Your task to perform on an android device: Search for logitech g903 on newegg, select the first entry, add it to the cart, then select checkout. Image 0: 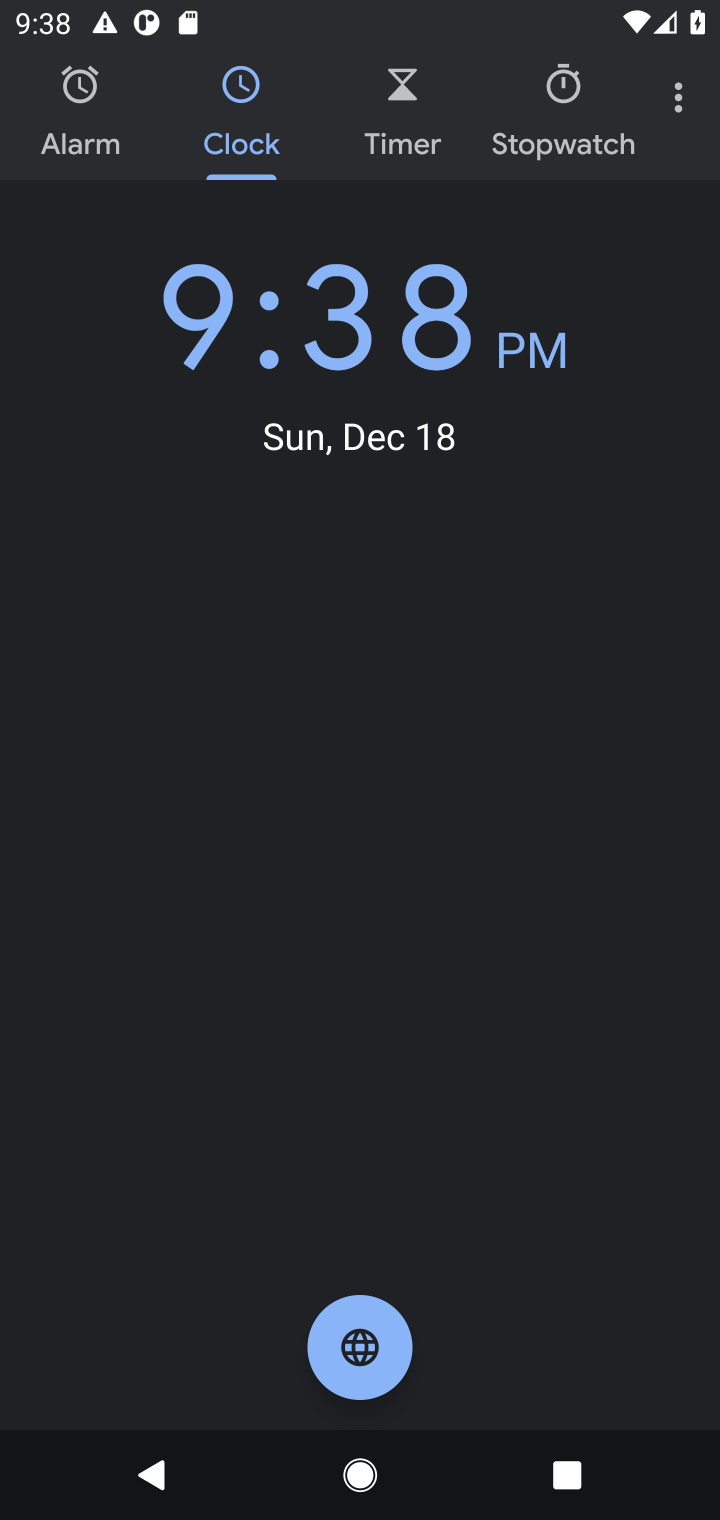
Step 0: press home button
Your task to perform on an android device: Search for logitech g903 on newegg, select the first entry, add it to the cart, then select checkout. Image 1: 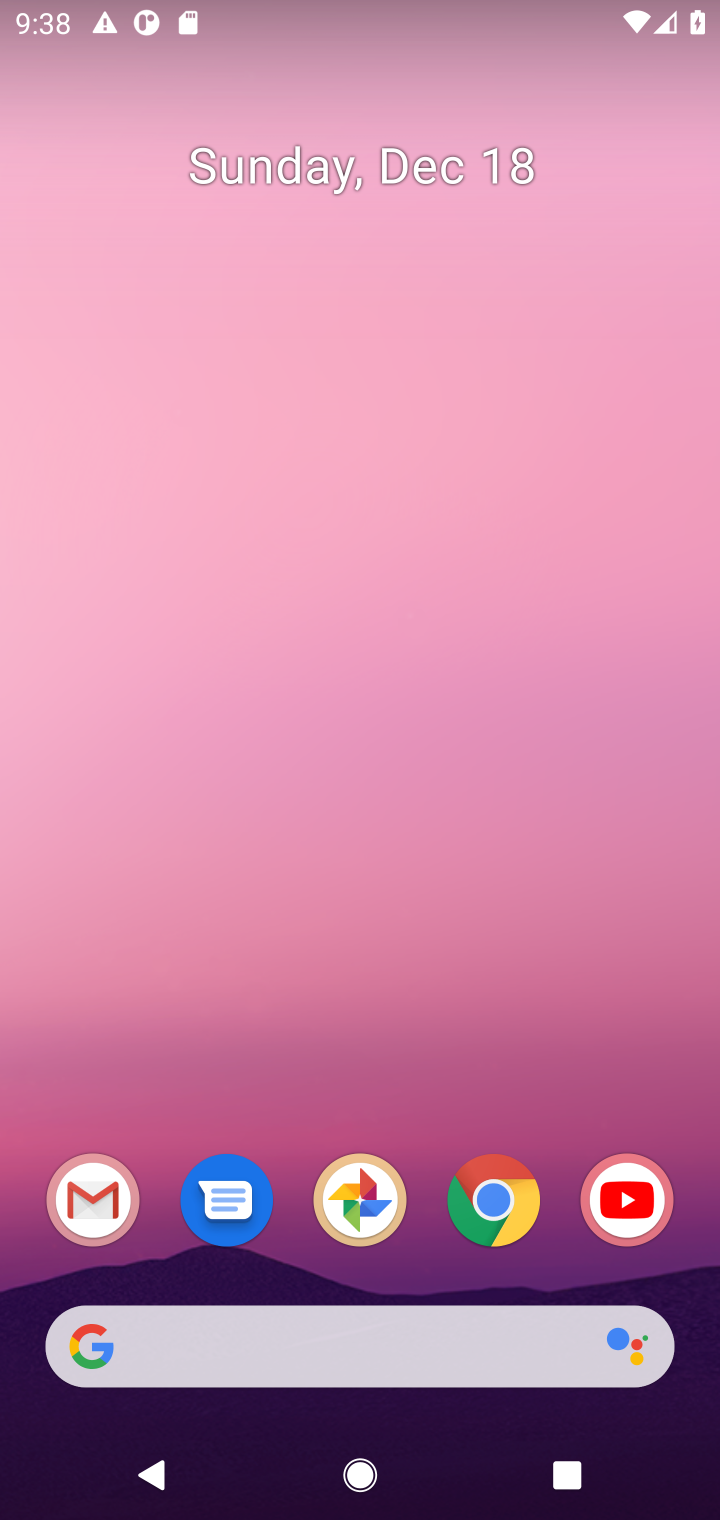
Step 1: click (486, 1207)
Your task to perform on an android device: Search for logitech g903 on newegg, select the first entry, add it to the cart, then select checkout. Image 2: 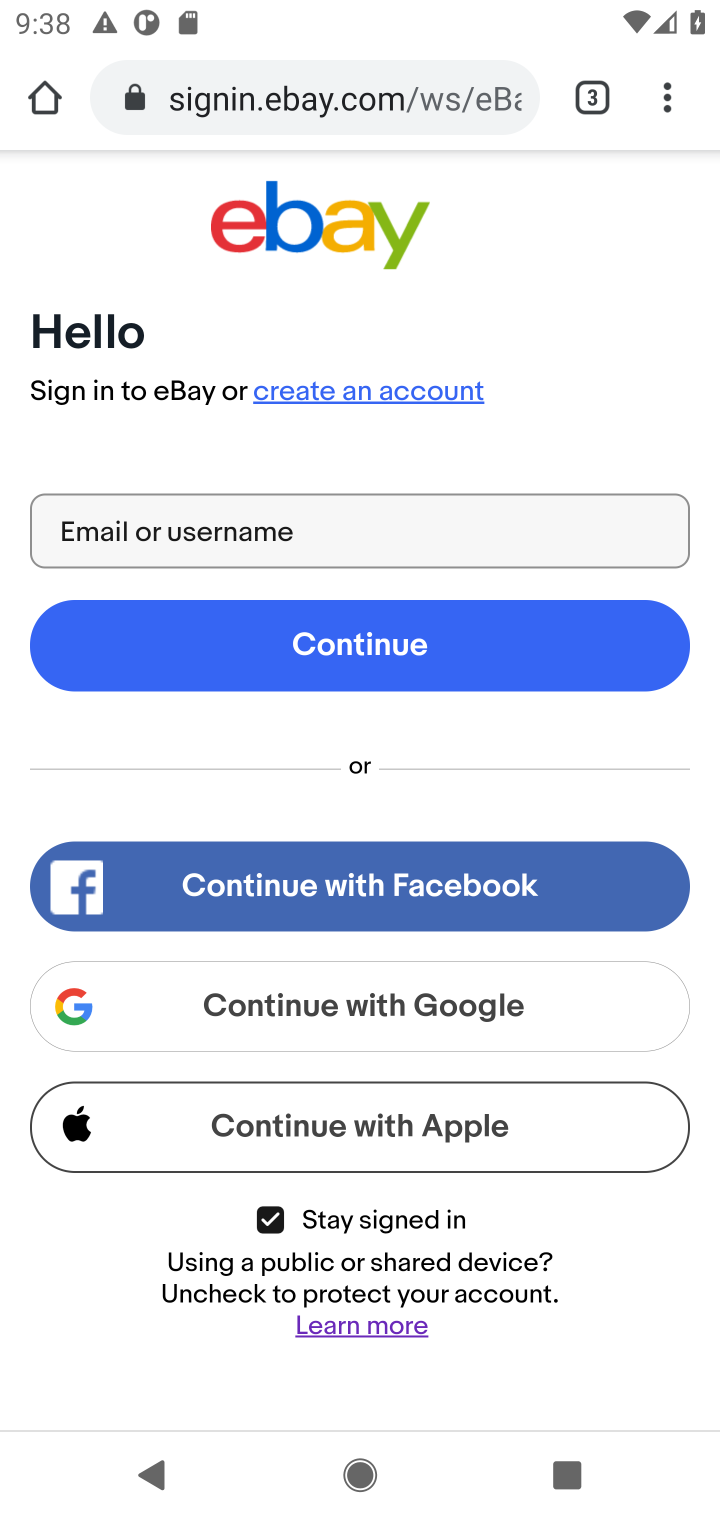
Step 2: click (275, 102)
Your task to perform on an android device: Search for logitech g903 on newegg, select the first entry, add it to the cart, then select checkout. Image 3: 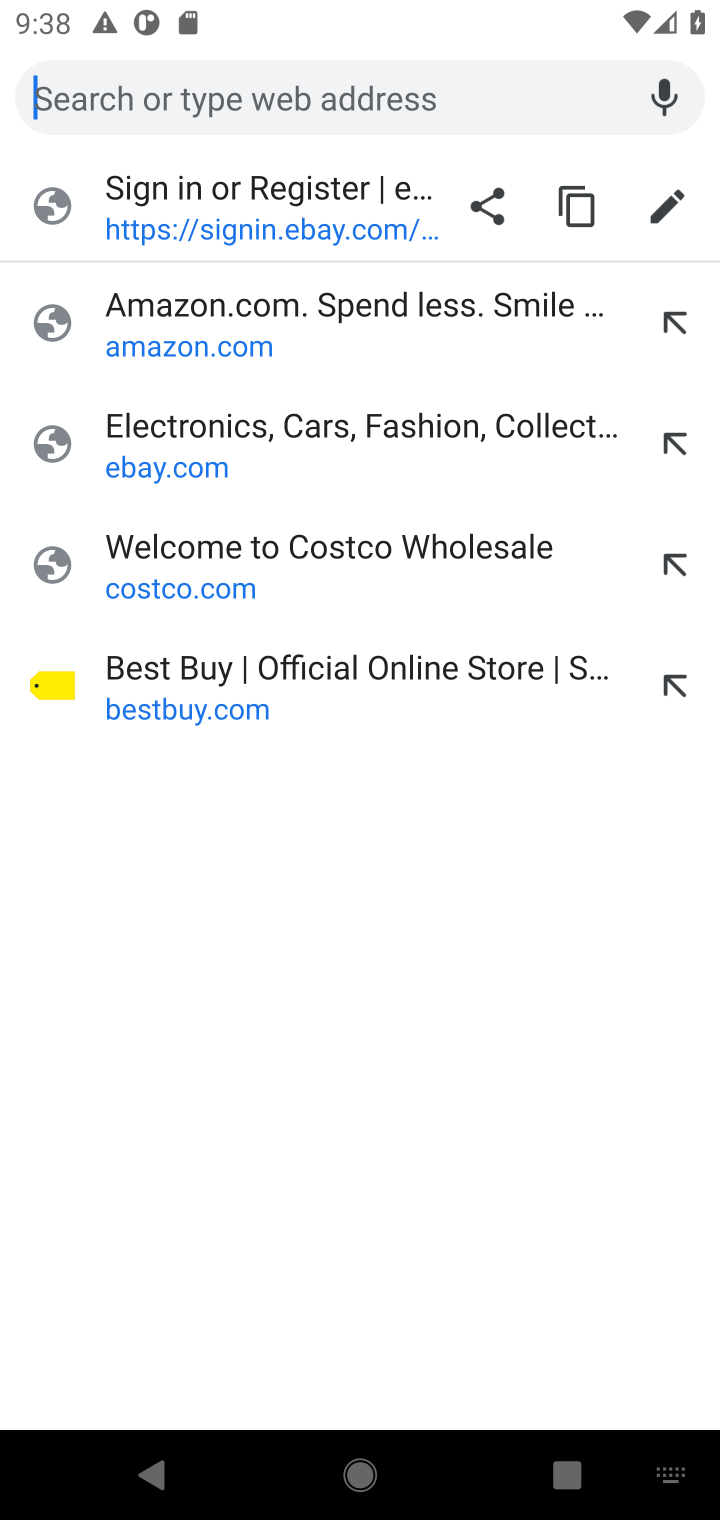
Step 3: type "newegg.com"
Your task to perform on an android device: Search for logitech g903 on newegg, select the first entry, add it to the cart, then select checkout. Image 4: 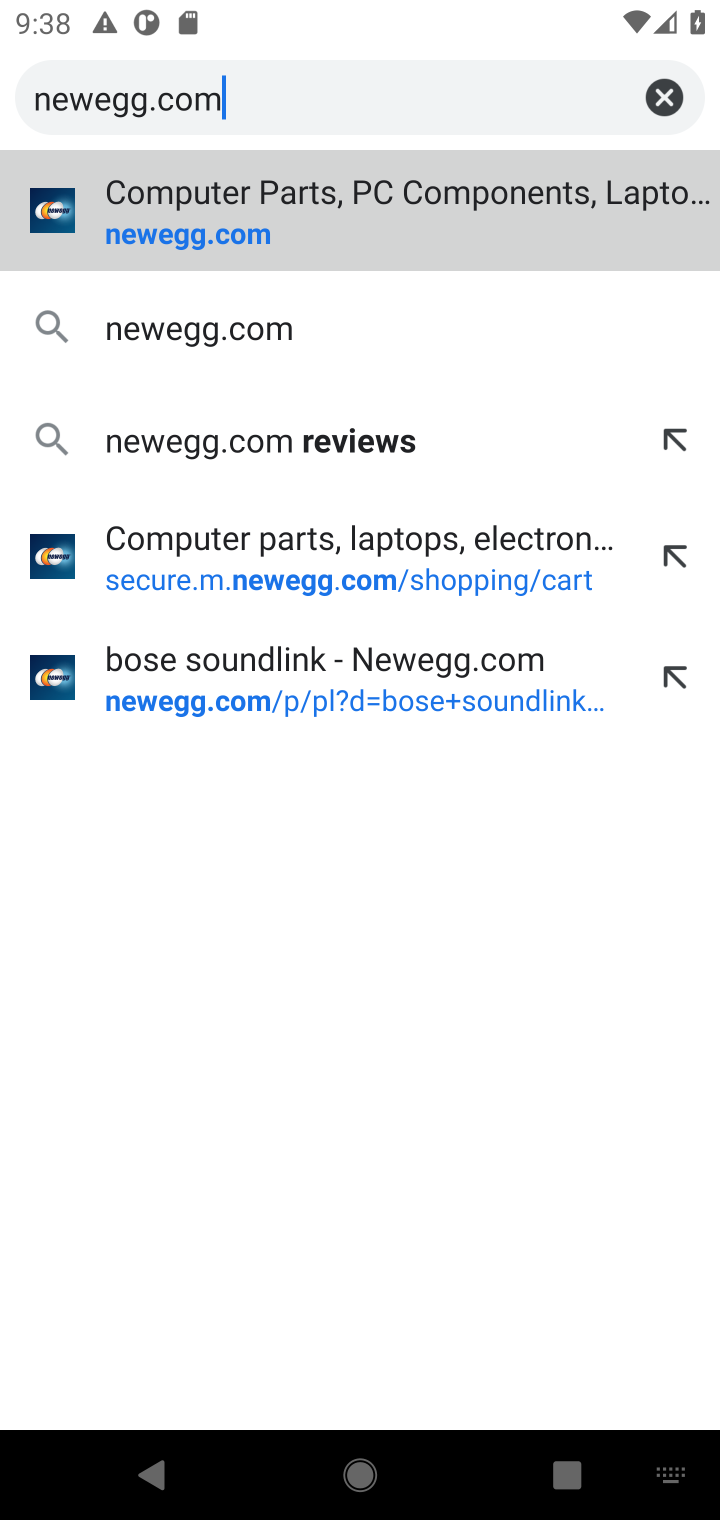
Step 4: click (150, 243)
Your task to perform on an android device: Search for logitech g903 on newegg, select the first entry, add it to the cart, then select checkout. Image 5: 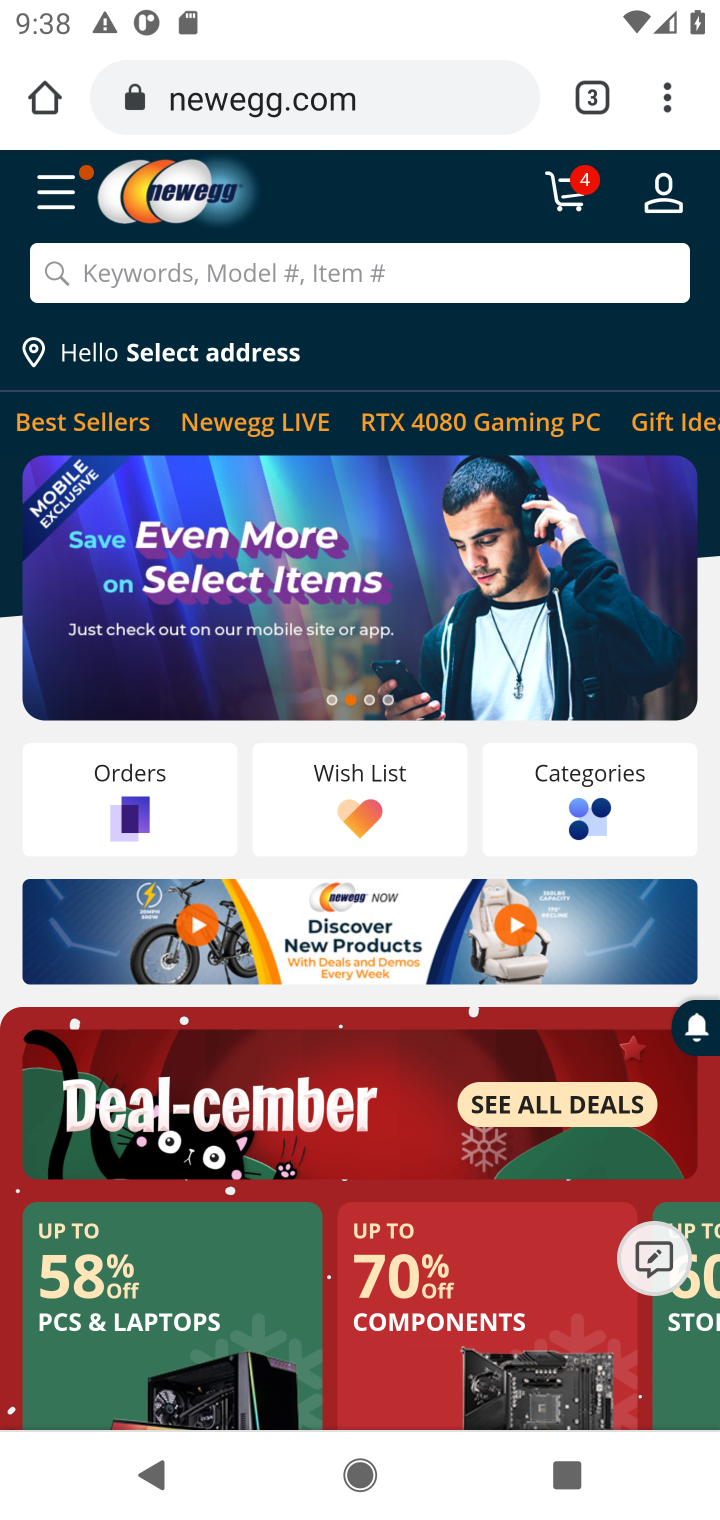
Step 5: click (114, 285)
Your task to perform on an android device: Search for logitech g903 on newegg, select the first entry, add it to the cart, then select checkout. Image 6: 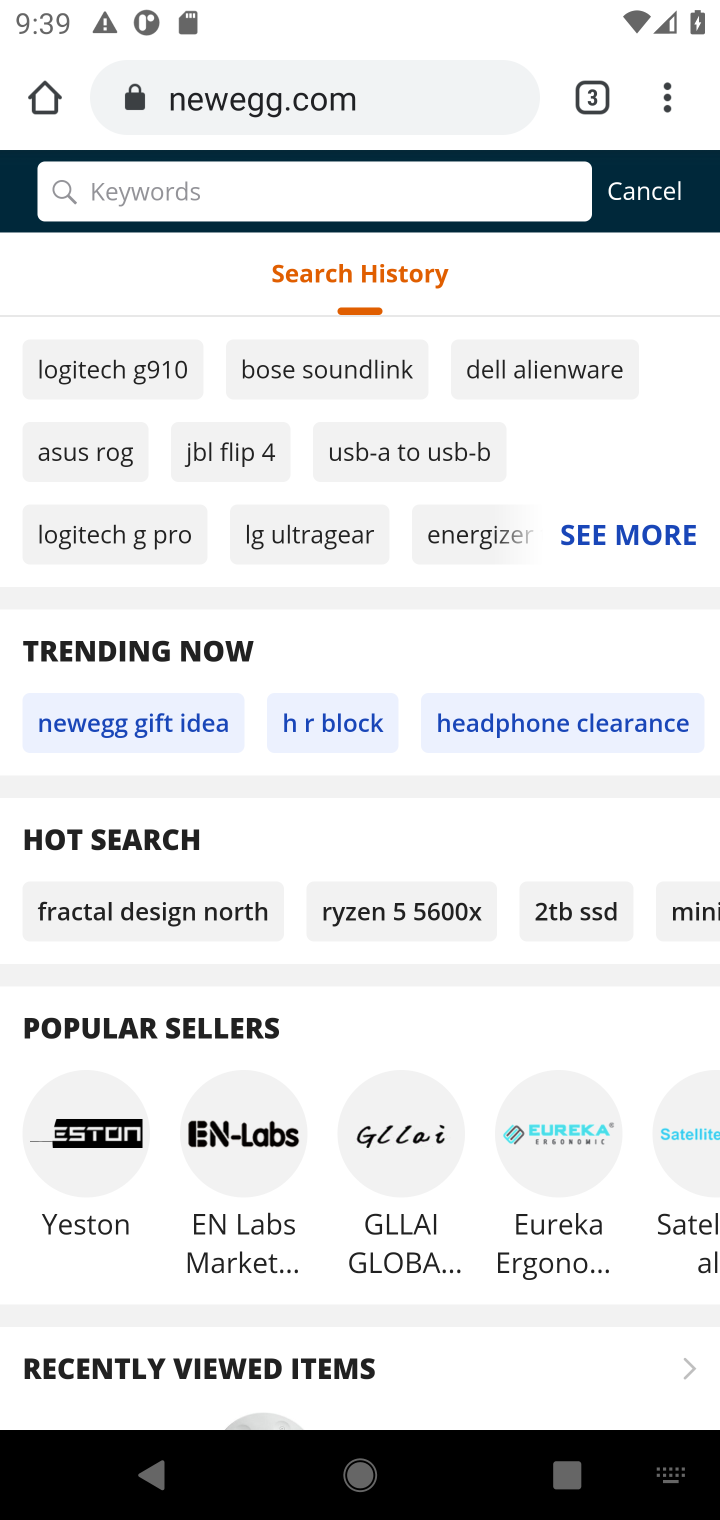
Step 6: type "logitech g903"
Your task to perform on an android device: Search for logitech g903 on newegg, select the first entry, add it to the cart, then select checkout. Image 7: 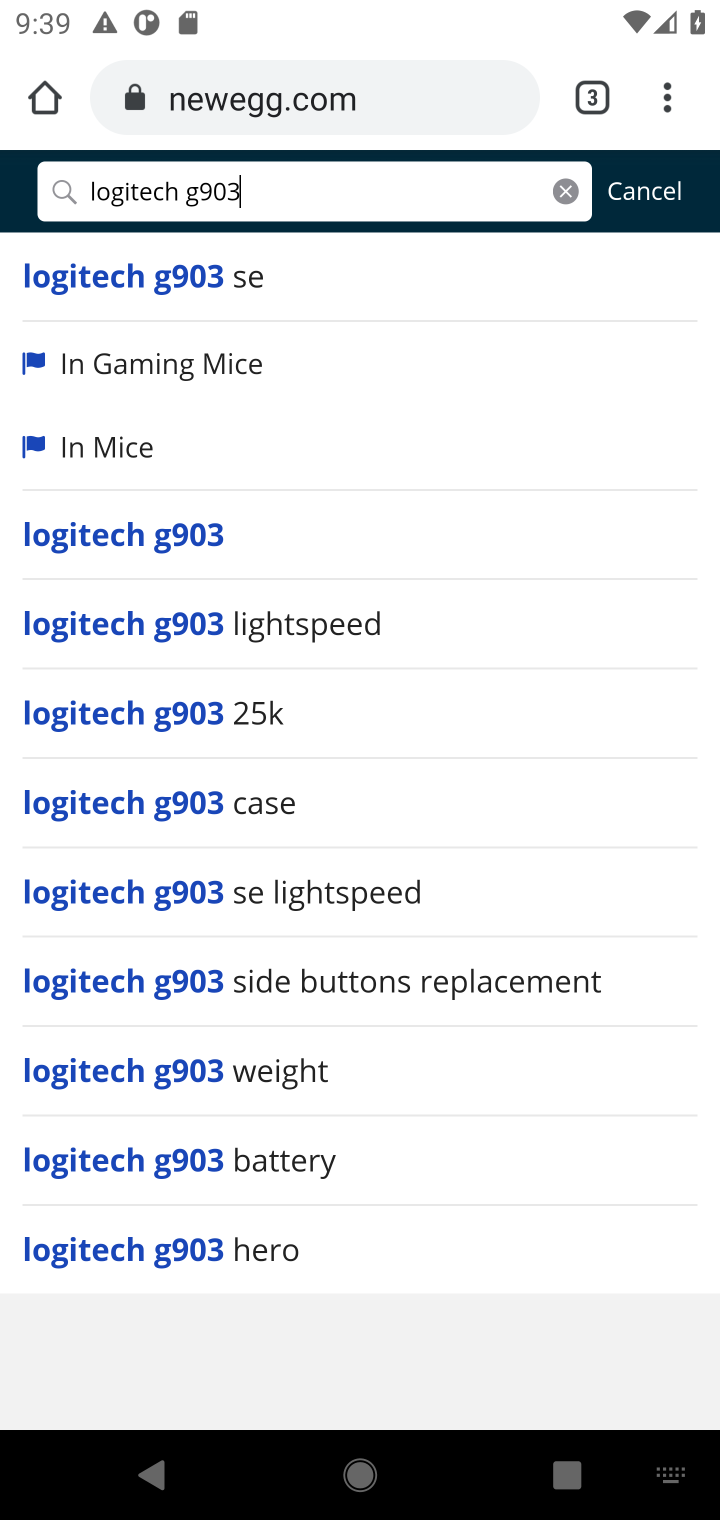
Step 7: click (120, 540)
Your task to perform on an android device: Search for logitech g903 on newegg, select the first entry, add it to the cart, then select checkout. Image 8: 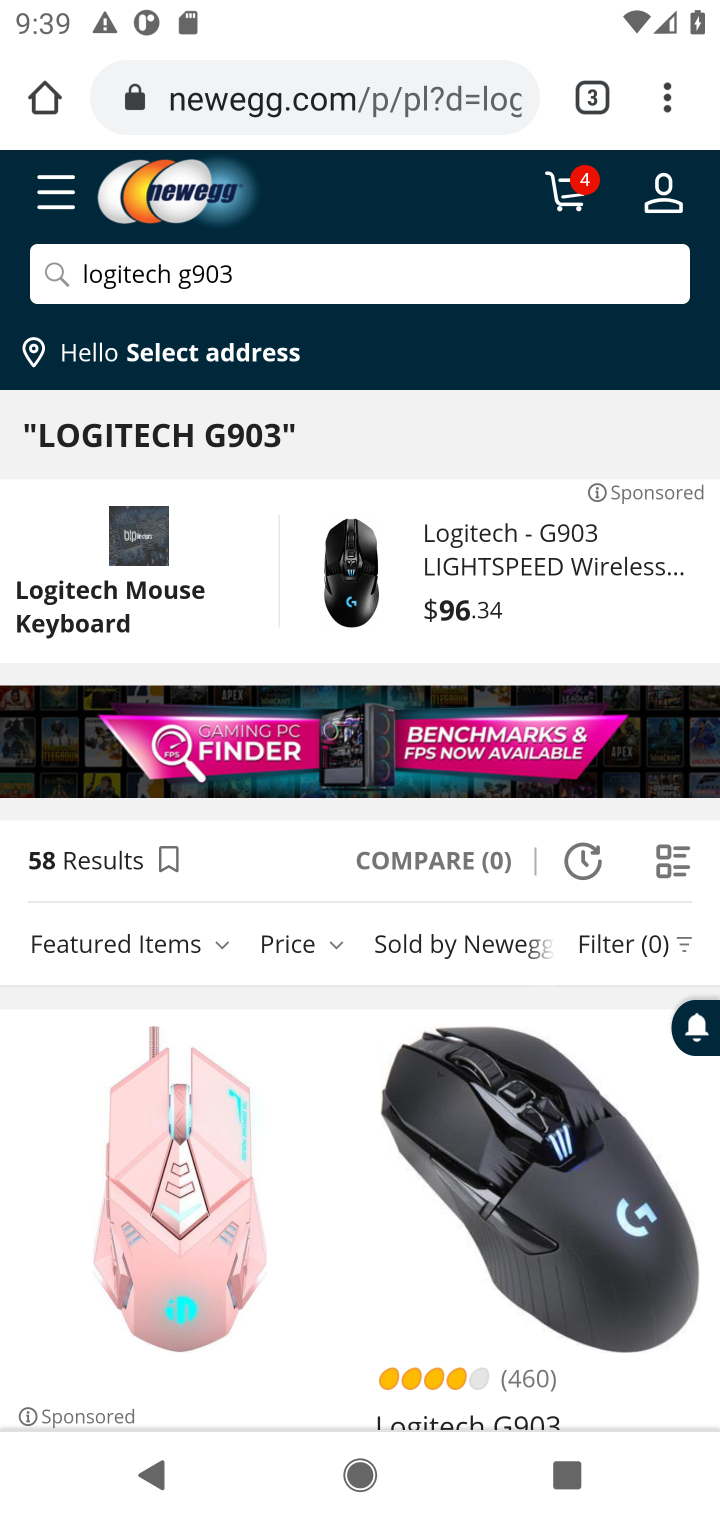
Step 8: drag from (243, 1077) to (237, 473)
Your task to perform on an android device: Search for logitech g903 on newegg, select the first entry, add it to the cart, then select checkout. Image 9: 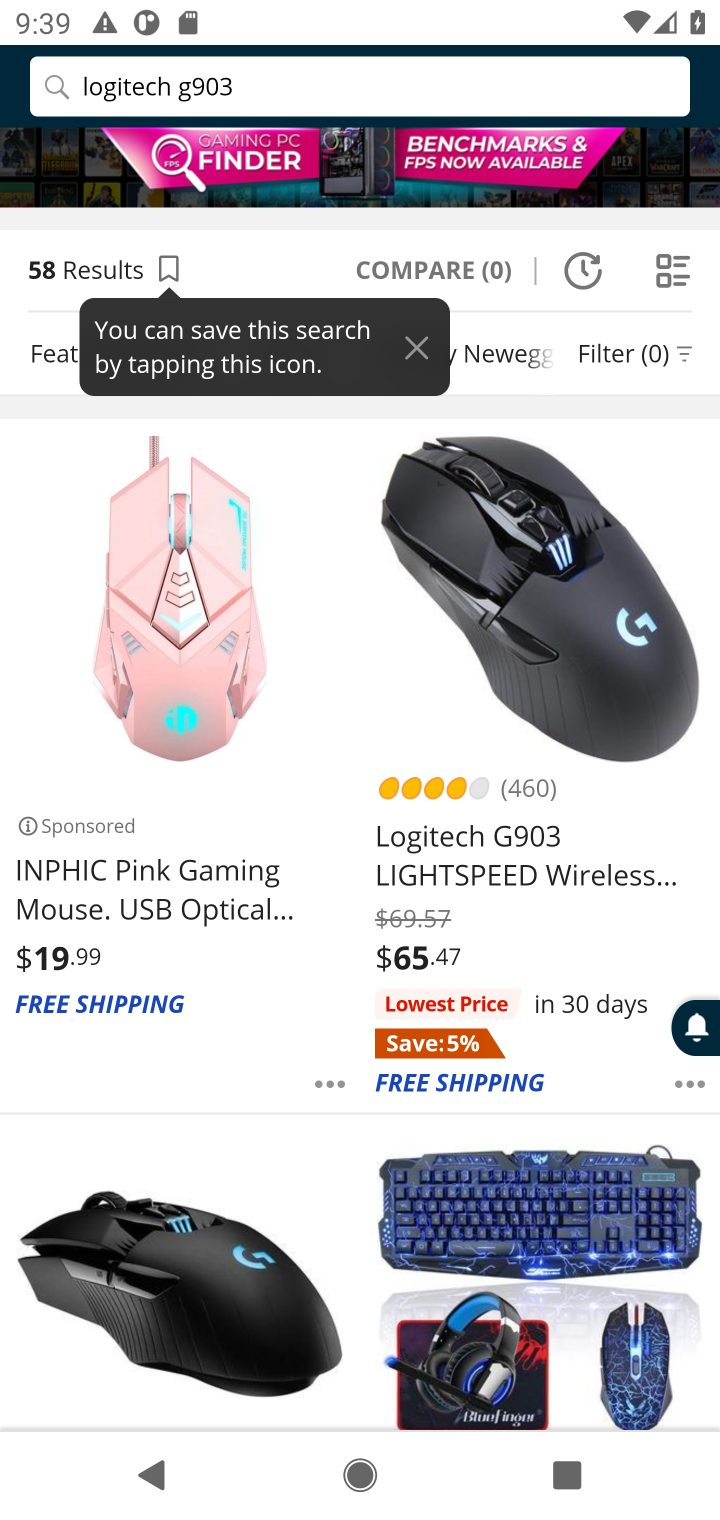
Step 9: click (194, 894)
Your task to perform on an android device: Search for logitech g903 on newegg, select the first entry, add it to the cart, then select checkout. Image 10: 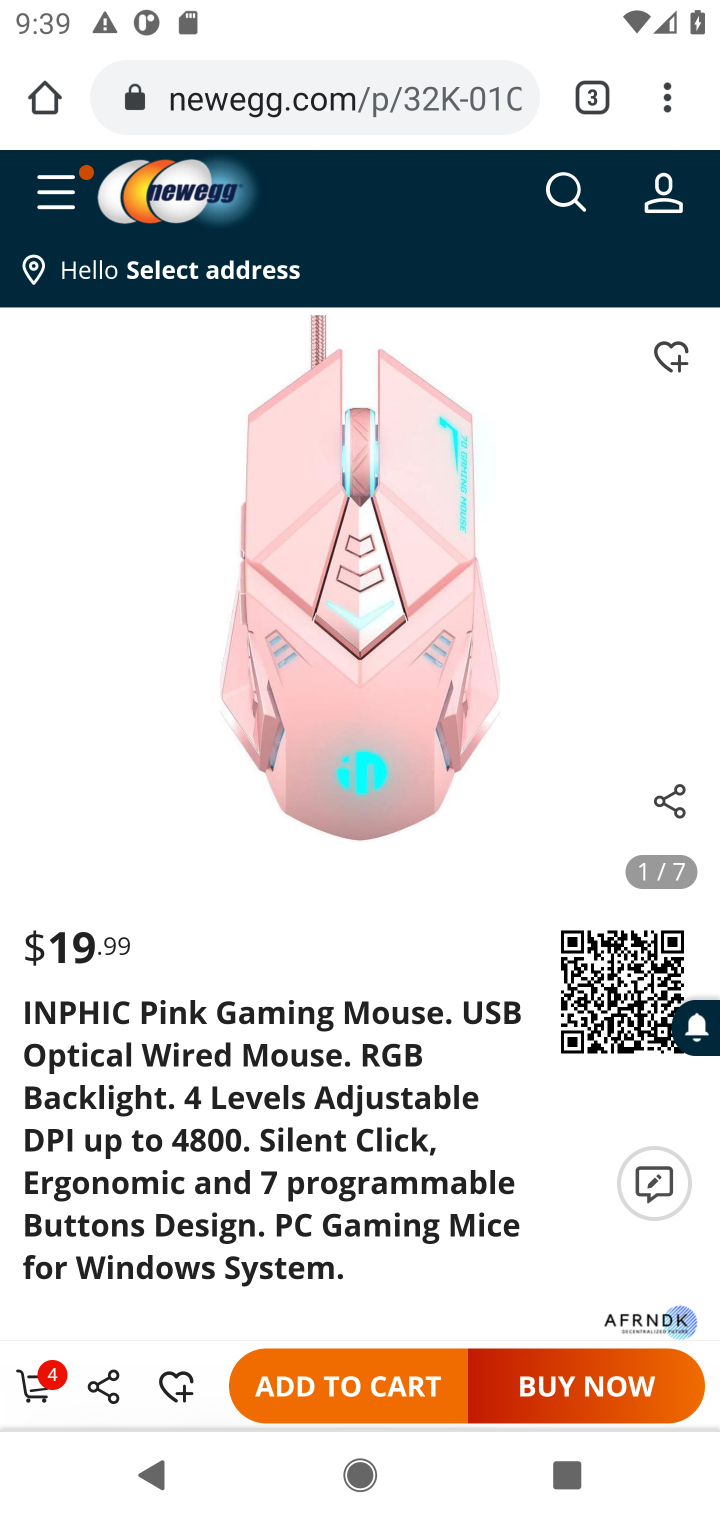
Step 10: task complete